Your task to perform on an android device: toggle airplane mode Image 0: 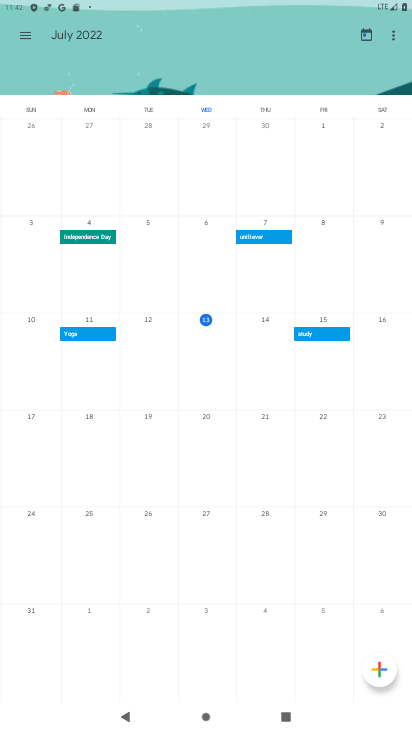
Step 0: drag from (276, 5) to (218, 628)
Your task to perform on an android device: toggle airplane mode Image 1: 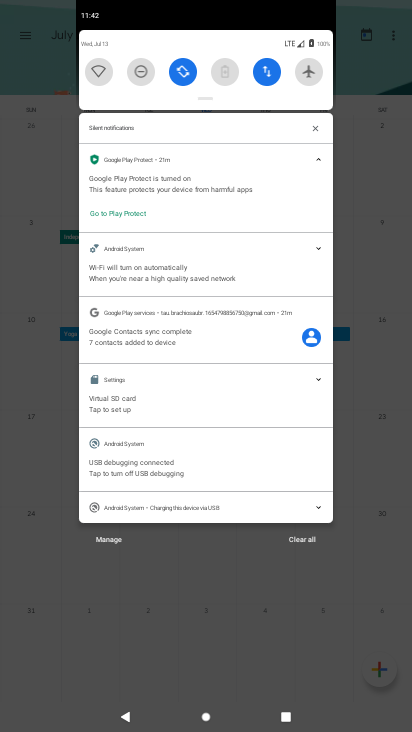
Step 1: click (313, 75)
Your task to perform on an android device: toggle airplane mode Image 2: 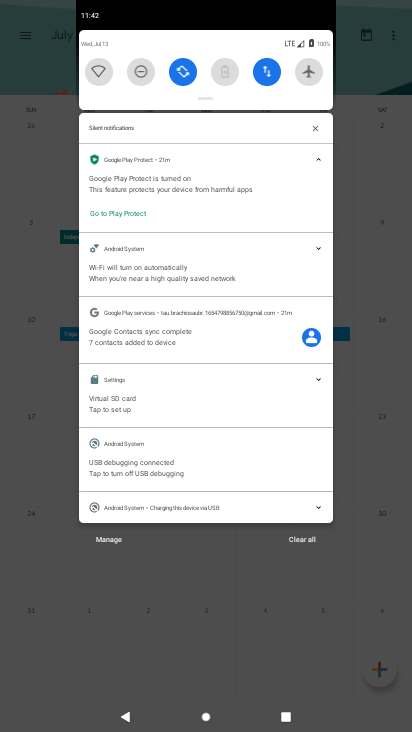
Step 2: click (313, 75)
Your task to perform on an android device: toggle airplane mode Image 3: 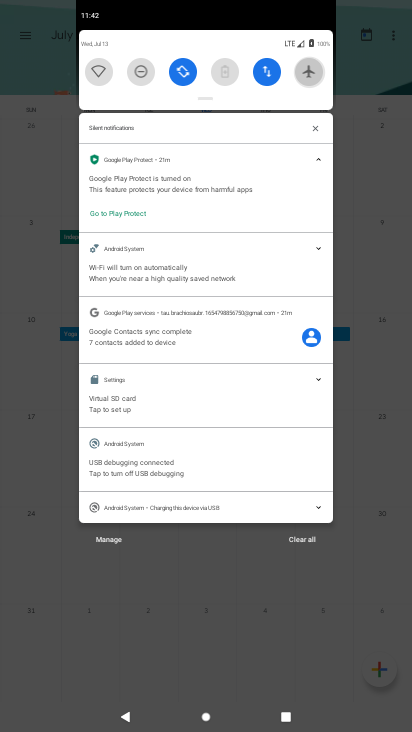
Step 3: click (313, 75)
Your task to perform on an android device: toggle airplane mode Image 4: 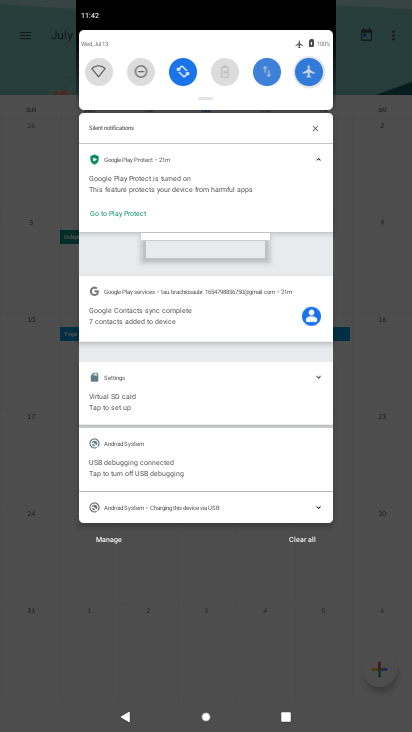
Step 4: click (313, 75)
Your task to perform on an android device: toggle airplane mode Image 5: 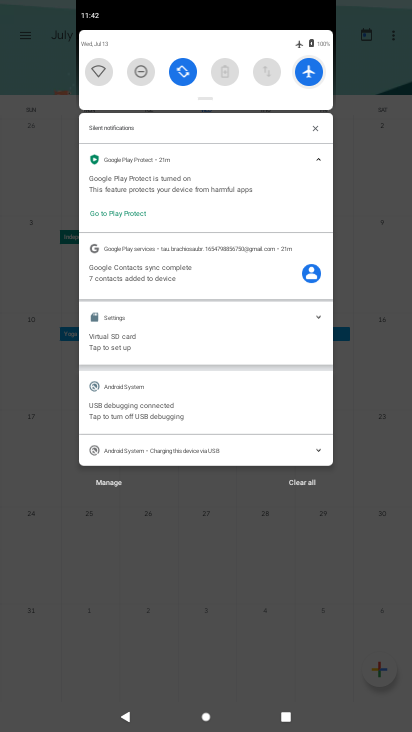
Step 5: click (313, 75)
Your task to perform on an android device: toggle airplane mode Image 6: 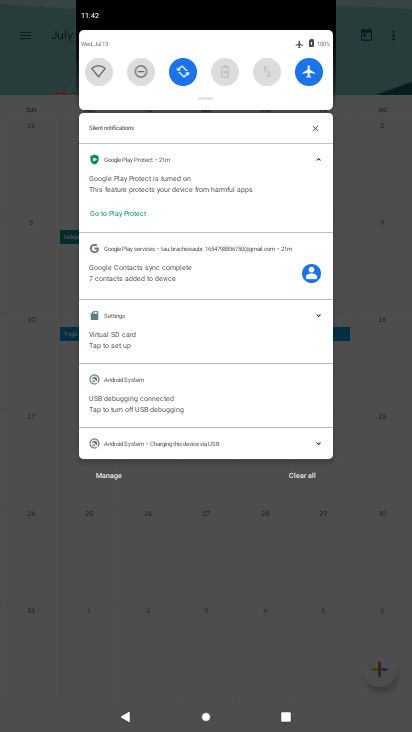
Step 6: click (313, 75)
Your task to perform on an android device: toggle airplane mode Image 7: 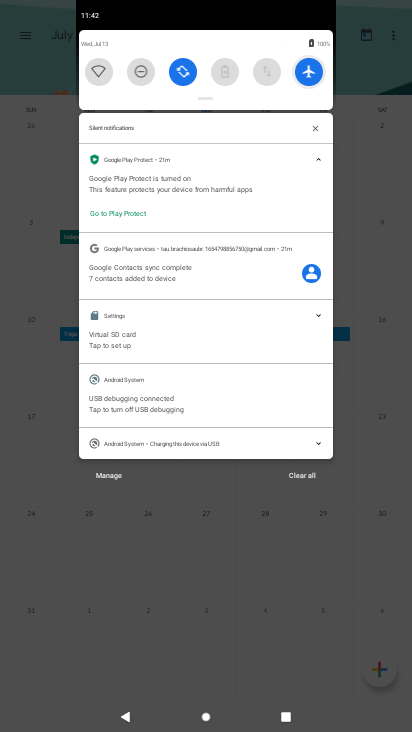
Step 7: click (313, 75)
Your task to perform on an android device: toggle airplane mode Image 8: 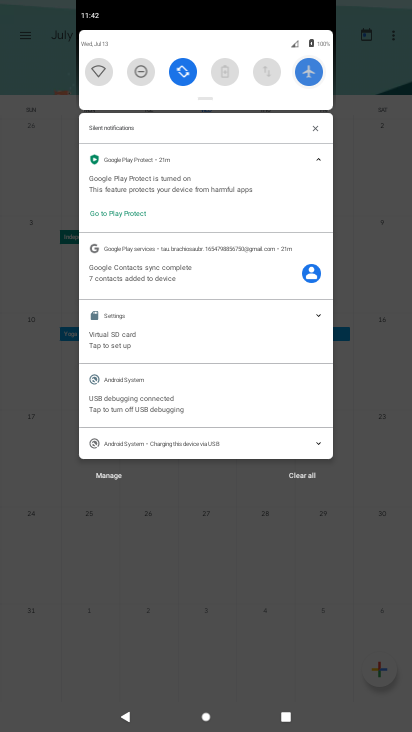
Step 8: click (313, 75)
Your task to perform on an android device: toggle airplane mode Image 9: 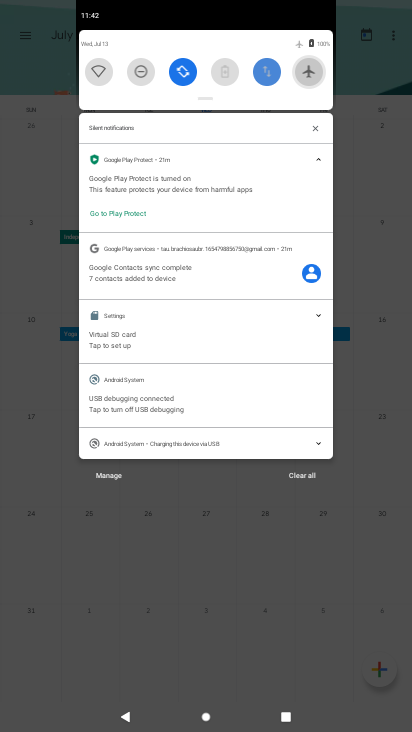
Step 9: click (313, 75)
Your task to perform on an android device: toggle airplane mode Image 10: 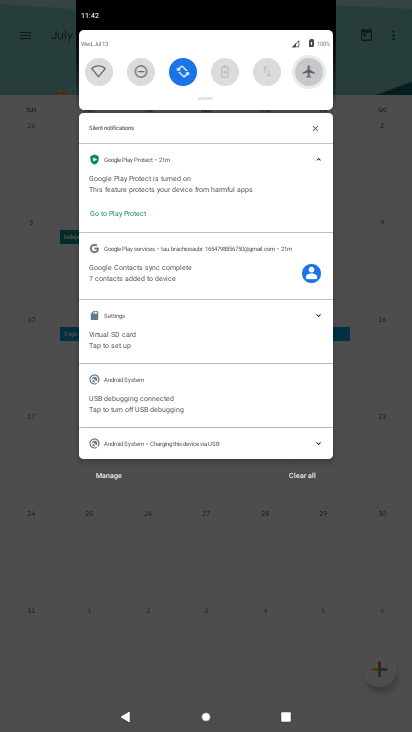
Step 10: click (313, 75)
Your task to perform on an android device: toggle airplane mode Image 11: 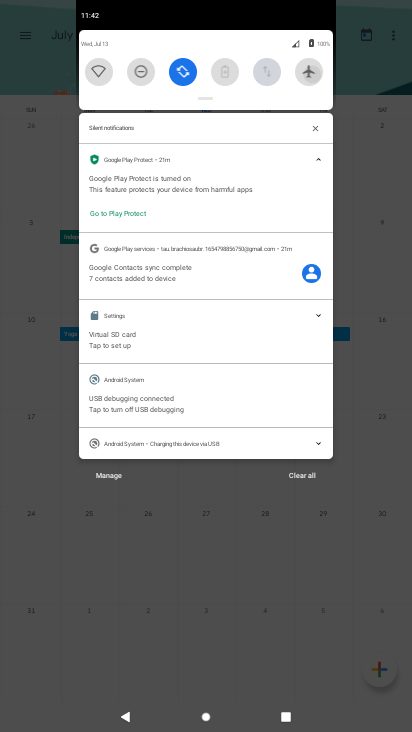
Step 11: click (313, 75)
Your task to perform on an android device: toggle airplane mode Image 12: 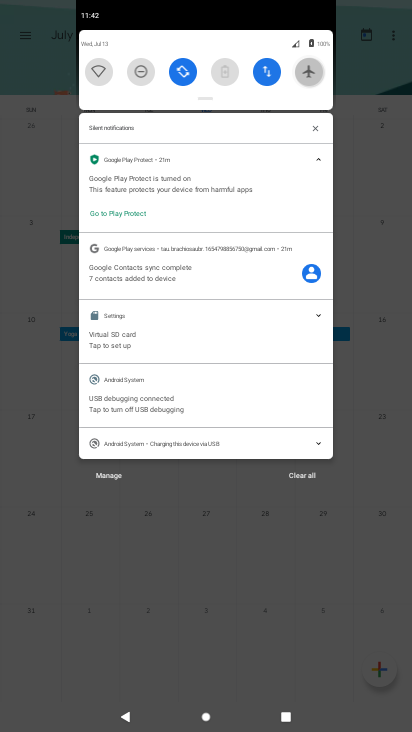
Step 12: click (313, 75)
Your task to perform on an android device: toggle airplane mode Image 13: 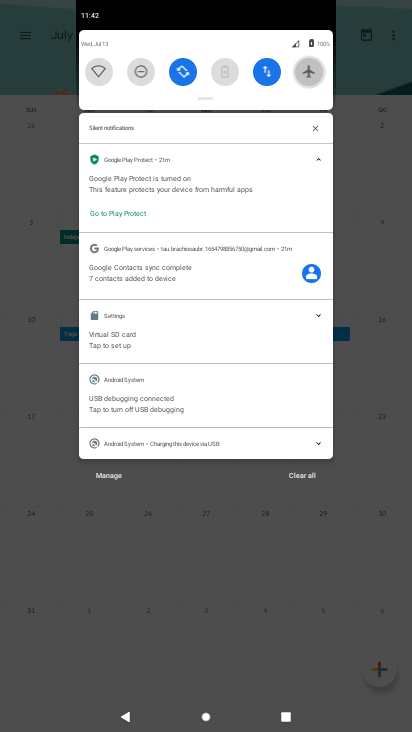
Step 13: click (313, 75)
Your task to perform on an android device: toggle airplane mode Image 14: 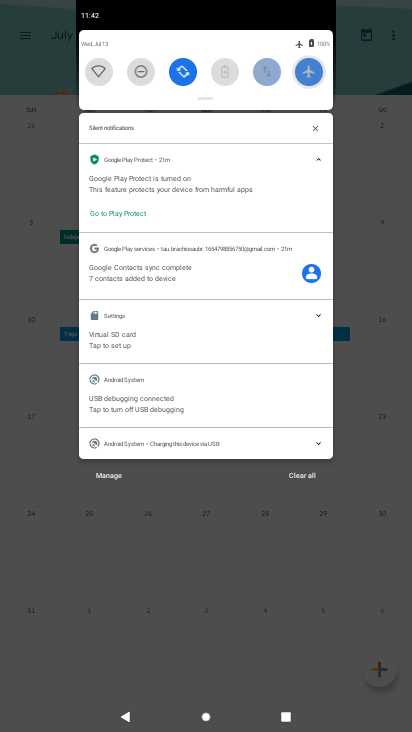
Step 14: click (313, 75)
Your task to perform on an android device: toggle airplane mode Image 15: 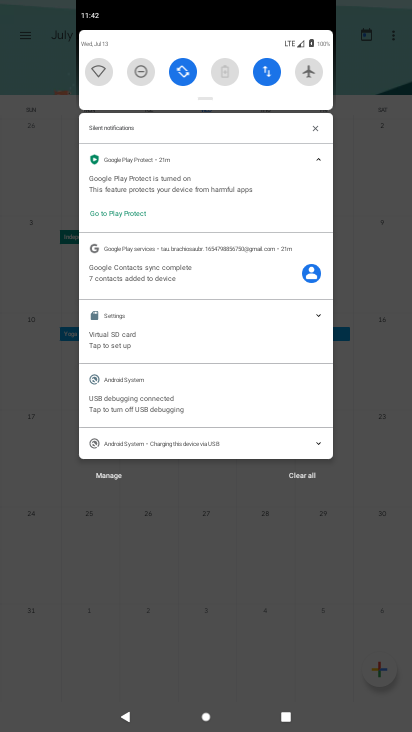
Step 15: task complete